Your task to perform on an android device: Open the contacts app Image 0: 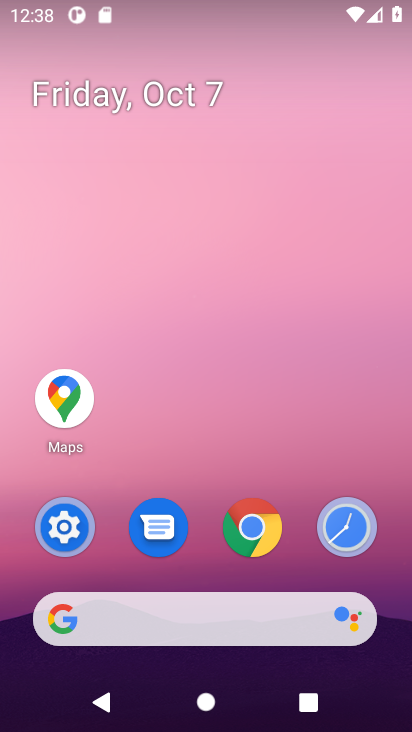
Step 0: drag from (229, 580) to (164, 7)
Your task to perform on an android device: Open the contacts app Image 1: 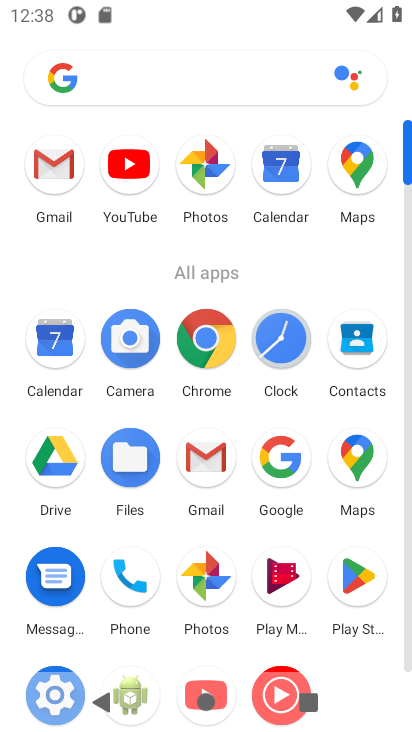
Step 1: click (364, 341)
Your task to perform on an android device: Open the contacts app Image 2: 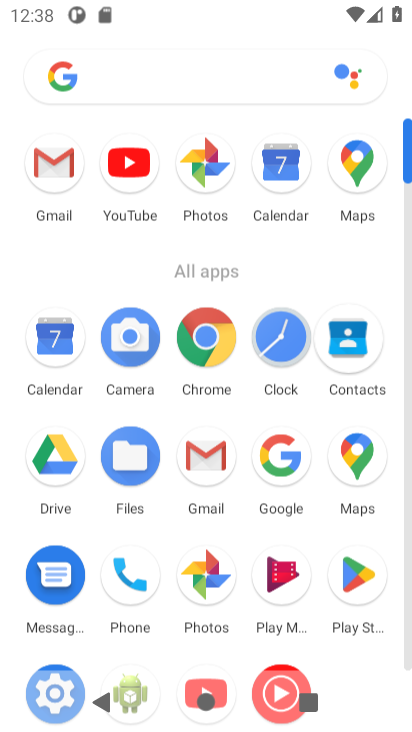
Step 2: click (364, 341)
Your task to perform on an android device: Open the contacts app Image 3: 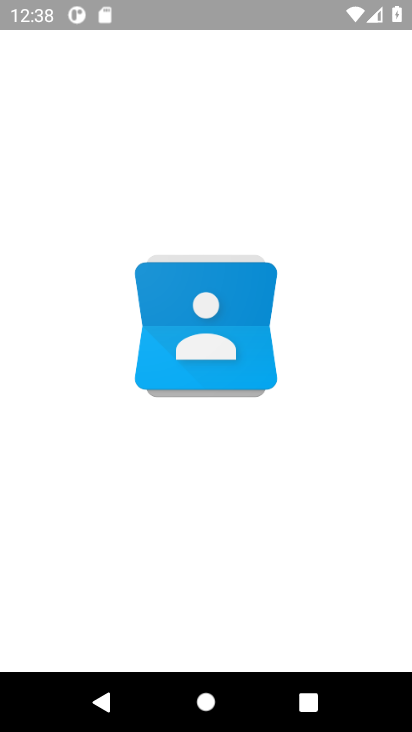
Step 3: task complete